Your task to perform on an android device: check out phone information Image 0: 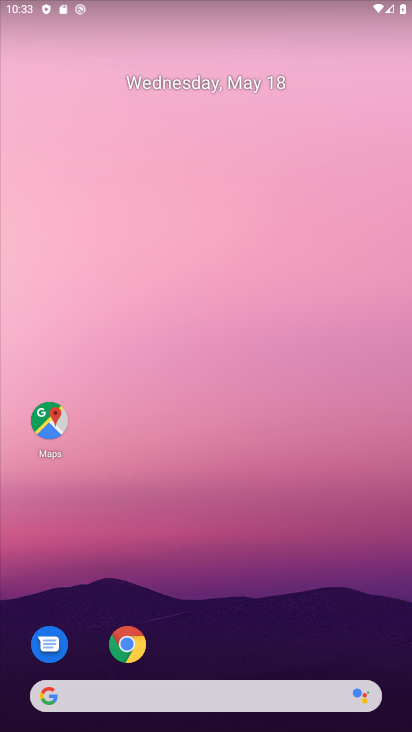
Step 0: drag from (336, 595) to (289, 89)
Your task to perform on an android device: check out phone information Image 1: 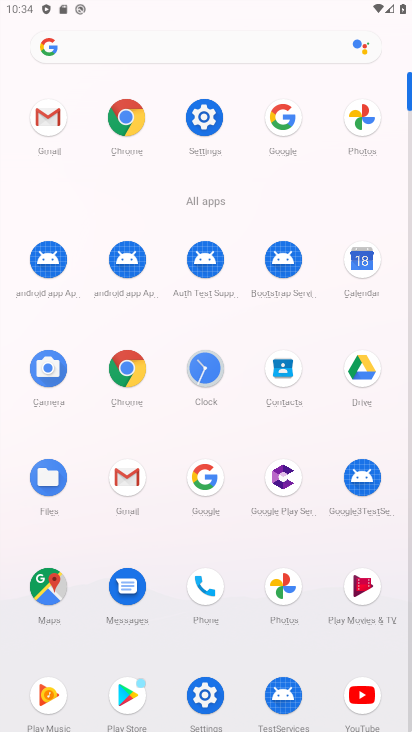
Step 1: click (208, 122)
Your task to perform on an android device: check out phone information Image 2: 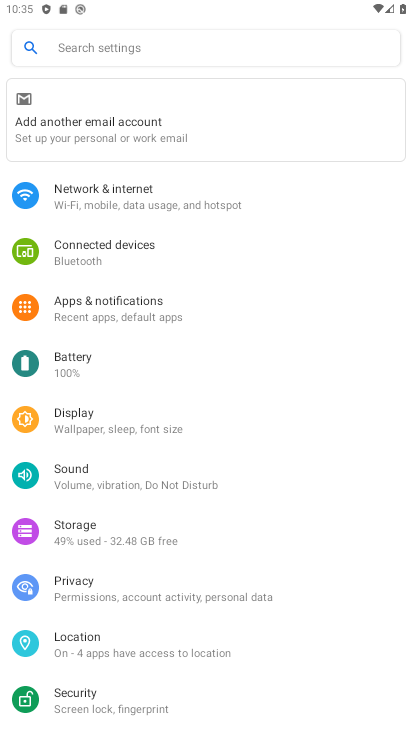
Step 2: task complete